Your task to perform on an android device: What's on the menu at Taco Bell? Image 0: 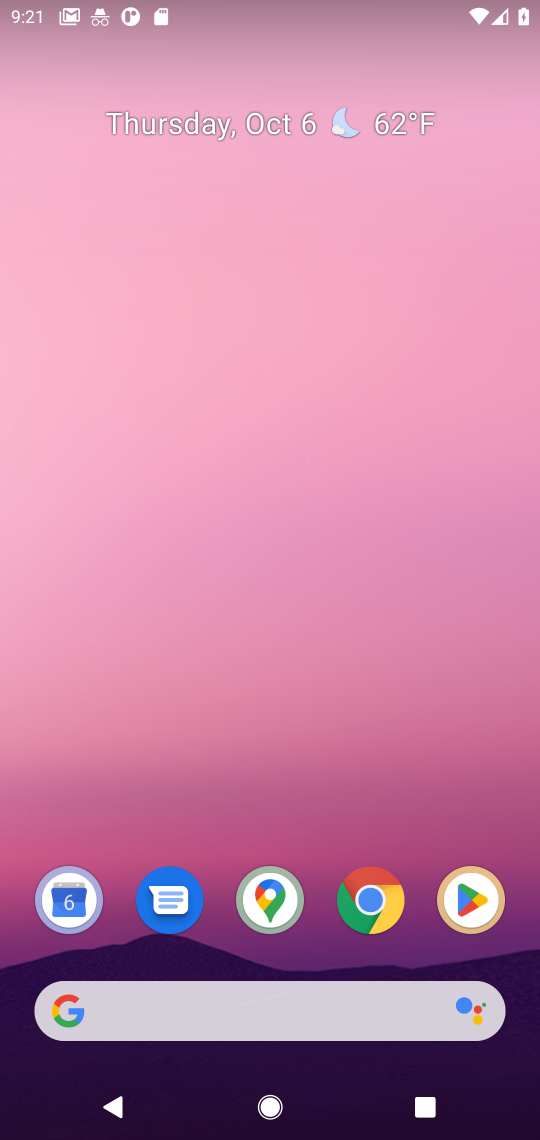
Step 0: press home button
Your task to perform on an android device: What's on the menu at Taco Bell? Image 1: 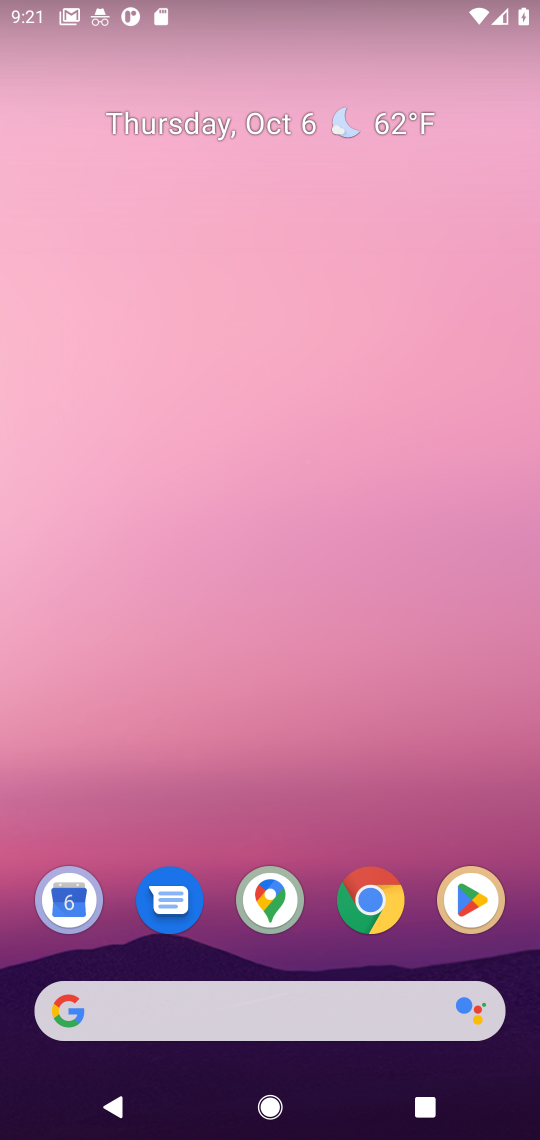
Step 1: click (263, 1006)
Your task to perform on an android device: What's on the menu at Taco Bell? Image 2: 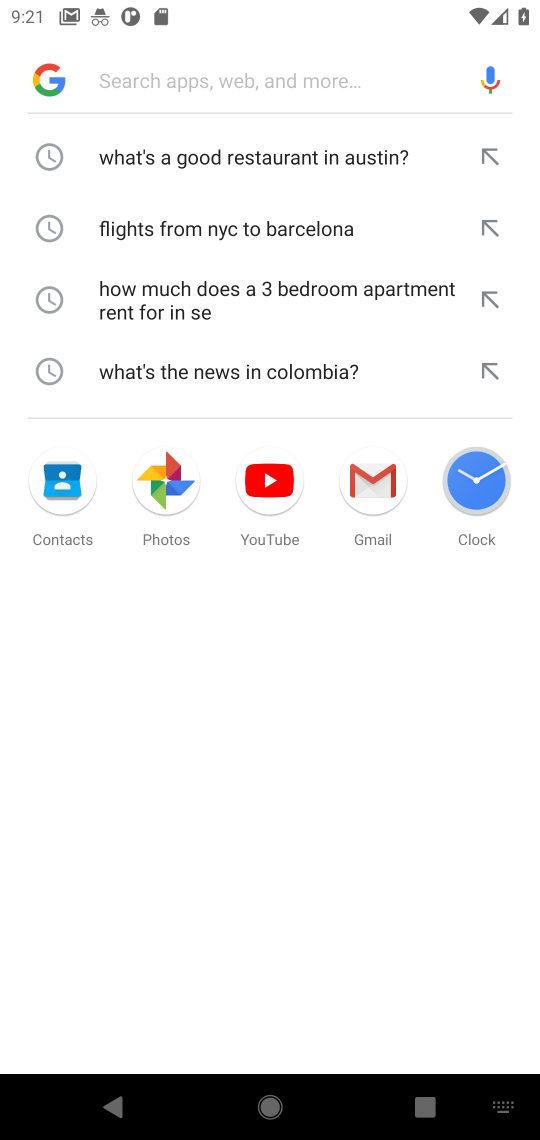
Step 2: type "What's on the menu at Taco Bell?"
Your task to perform on an android device: What's on the menu at Taco Bell? Image 3: 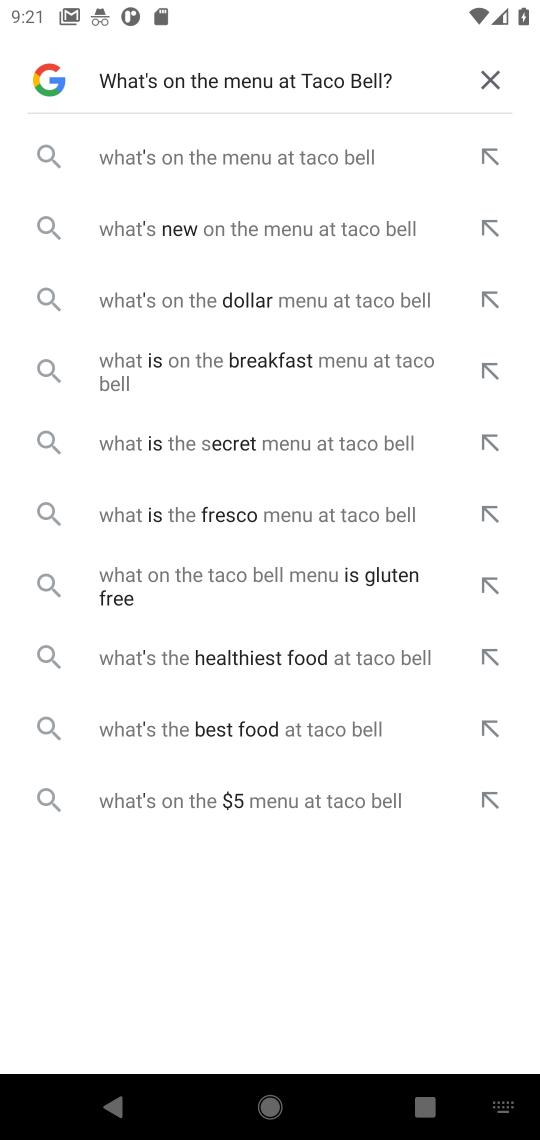
Step 3: press enter
Your task to perform on an android device: What's on the menu at Taco Bell? Image 4: 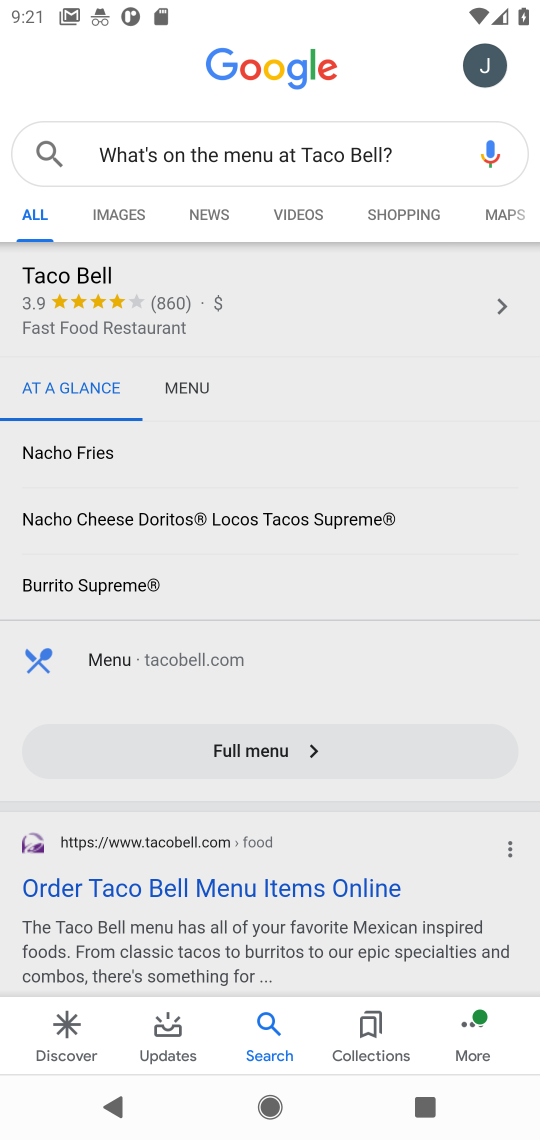
Step 4: click (347, 893)
Your task to perform on an android device: What's on the menu at Taco Bell? Image 5: 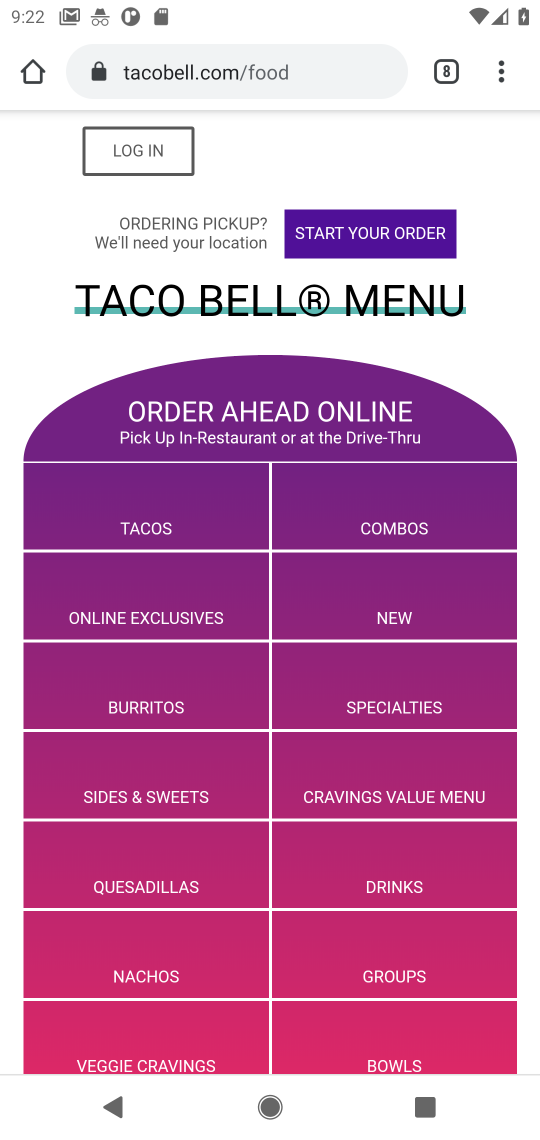
Step 5: task complete